Your task to perform on an android device: all mails in gmail Image 0: 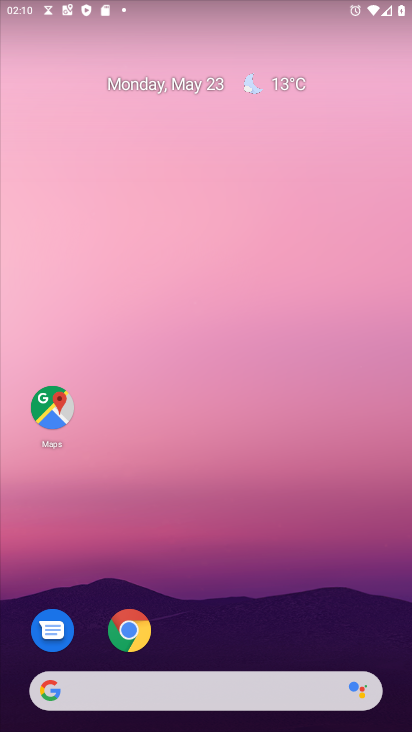
Step 0: drag from (277, 441) to (254, 65)
Your task to perform on an android device: all mails in gmail Image 1: 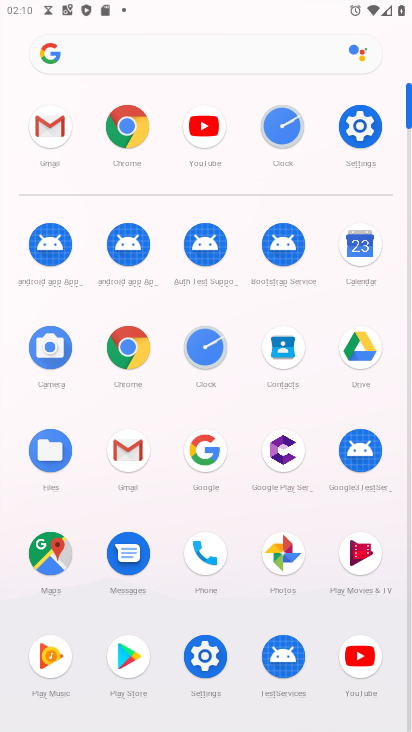
Step 1: click (125, 453)
Your task to perform on an android device: all mails in gmail Image 2: 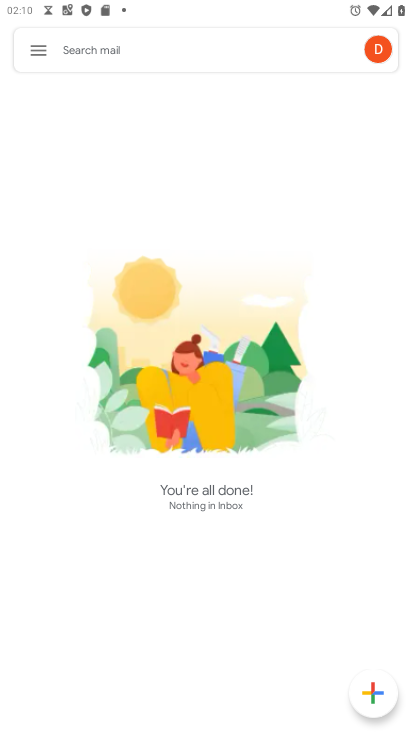
Step 2: click (40, 53)
Your task to perform on an android device: all mails in gmail Image 3: 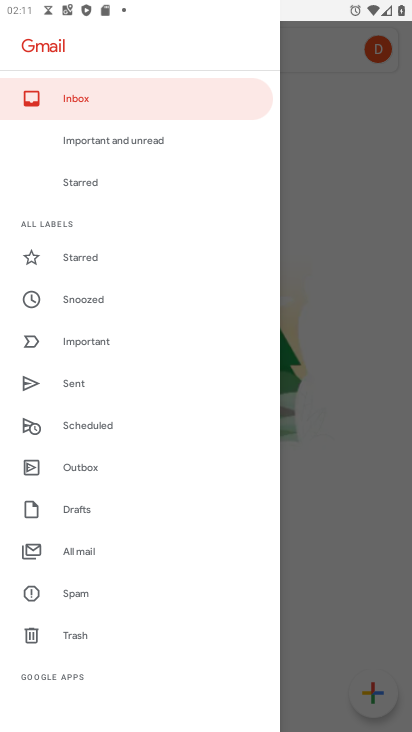
Step 3: click (127, 550)
Your task to perform on an android device: all mails in gmail Image 4: 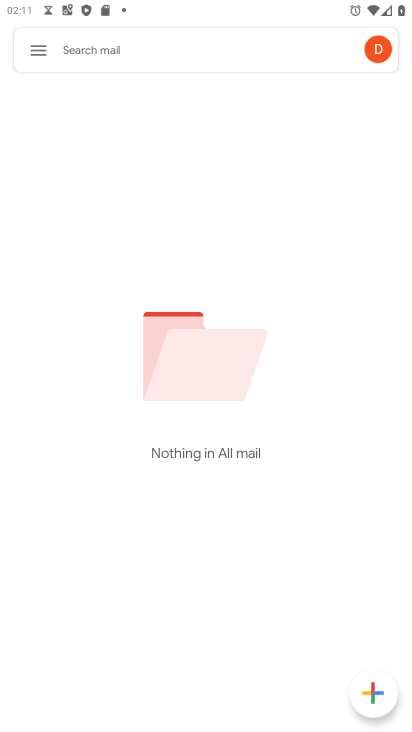
Step 4: task complete